Your task to perform on an android device: Is it going to rain today? Image 0: 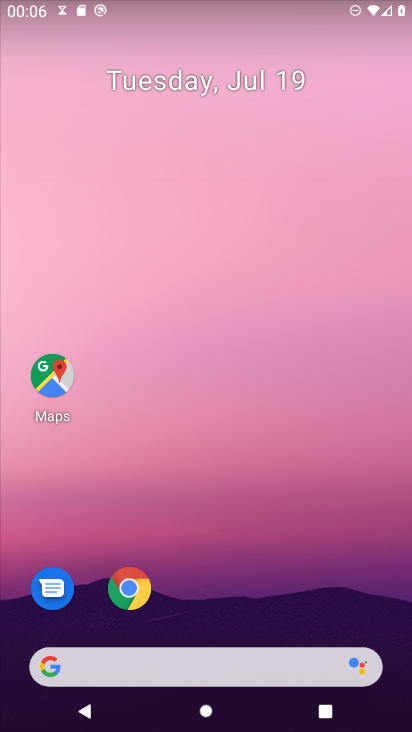
Step 0: press home button
Your task to perform on an android device: Is it going to rain today? Image 1: 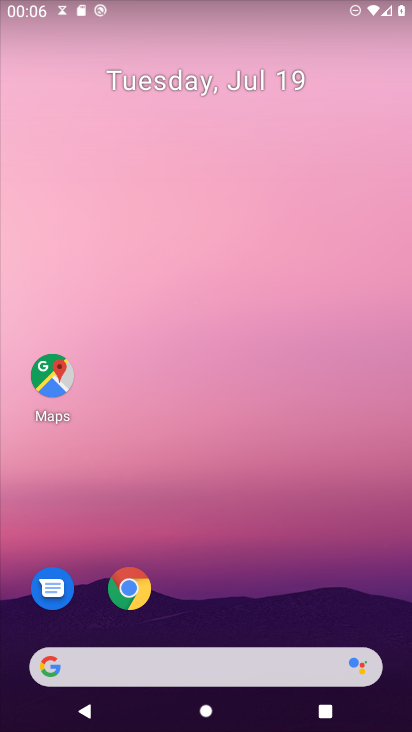
Step 1: click (48, 665)
Your task to perform on an android device: Is it going to rain today? Image 2: 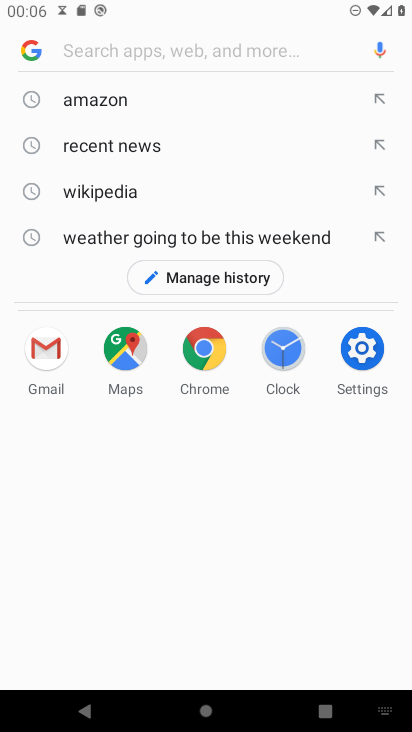
Step 2: type "Is it going to rain today"
Your task to perform on an android device: Is it going to rain today? Image 3: 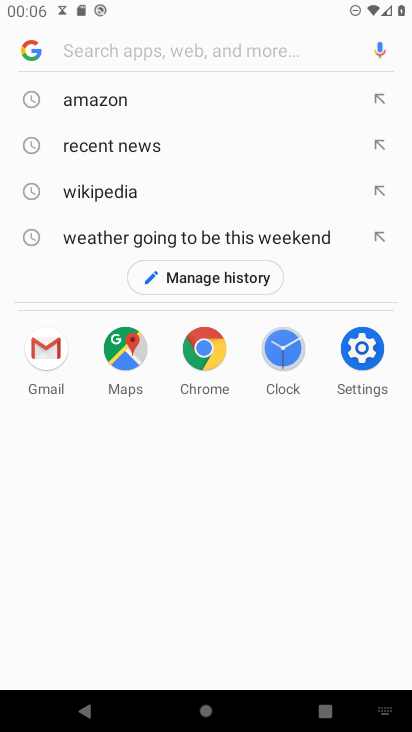
Step 3: click (145, 50)
Your task to perform on an android device: Is it going to rain today? Image 4: 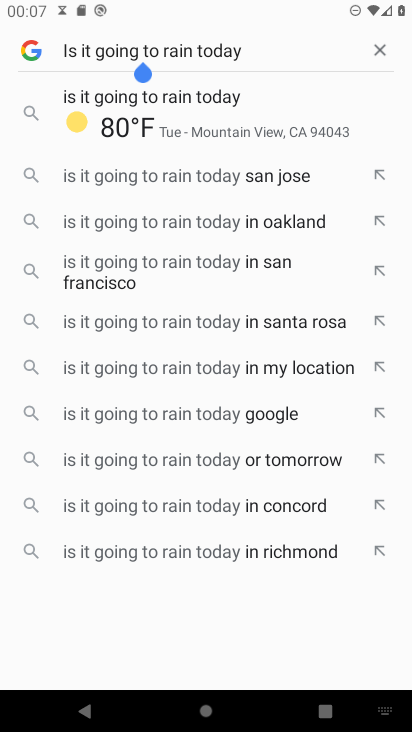
Step 4: press enter
Your task to perform on an android device: Is it going to rain today? Image 5: 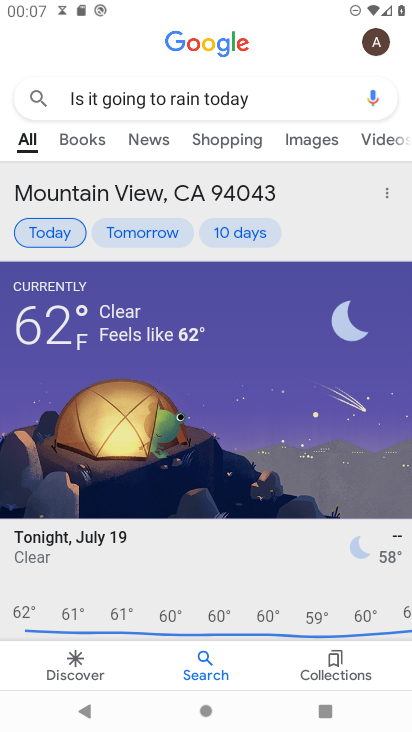
Step 5: task complete